Your task to perform on an android device: Open my contact list Image 0: 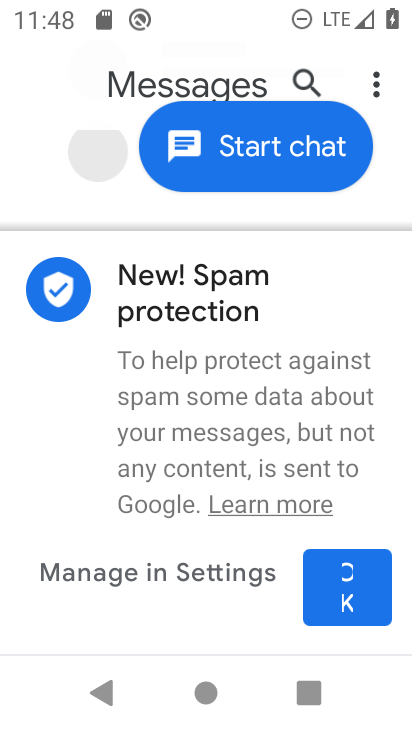
Step 0: press home button
Your task to perform on an android device: Open my contact list Image 1: 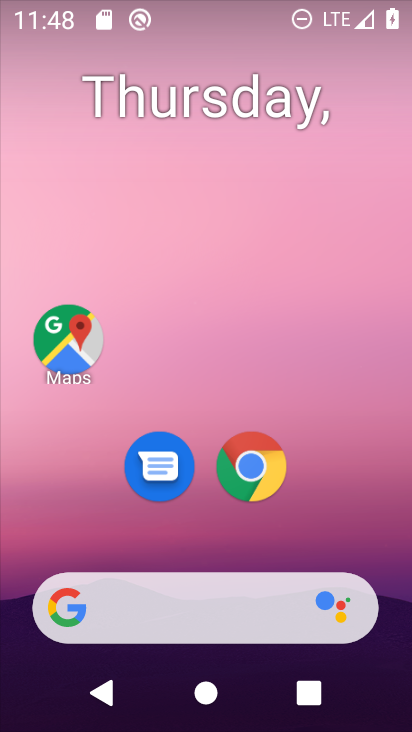
Step 1: drag from (232, 603) to (291, 0)
Your task to perform on an android device: Open my contact list Image 2: 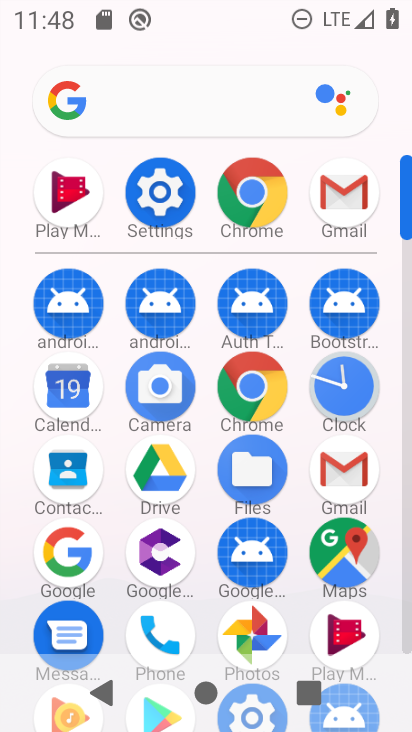
Step 2: click (67, 476)
Your task to perform on an android device: Open my contact list Image 3: 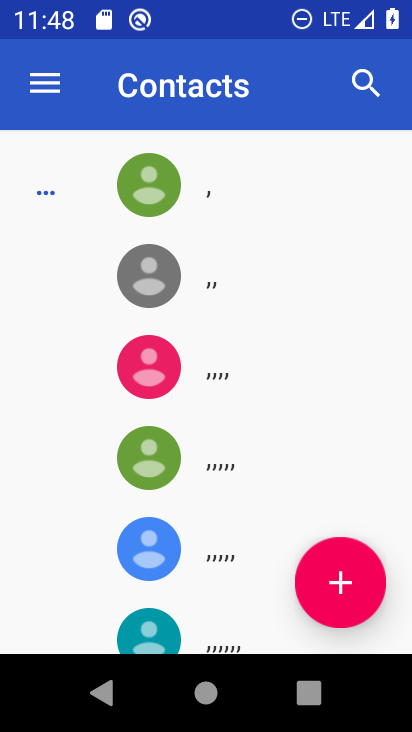
Step 3: task complete